Your task to perform on an android device: Open Google Image 0: 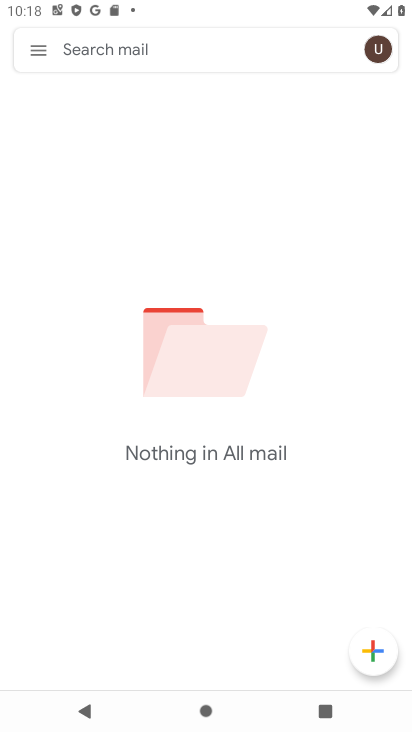
Step 0: press home button
Your task to perform on an android device: Open Google Image 1: 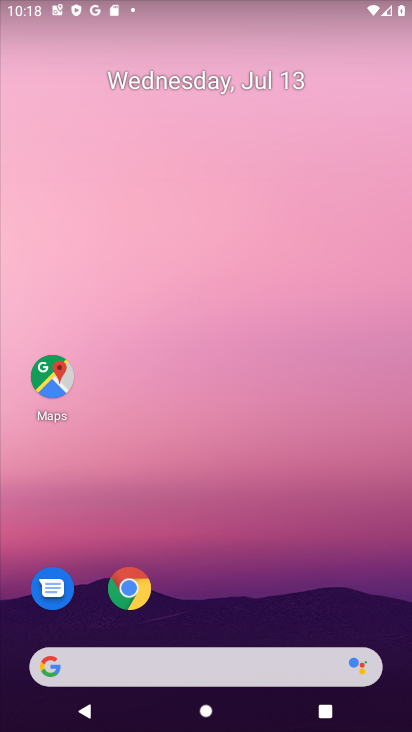
Step 1: drag from (238, 553) to (217, 69)
Your task to perform on an android device: Open Google Image 2: 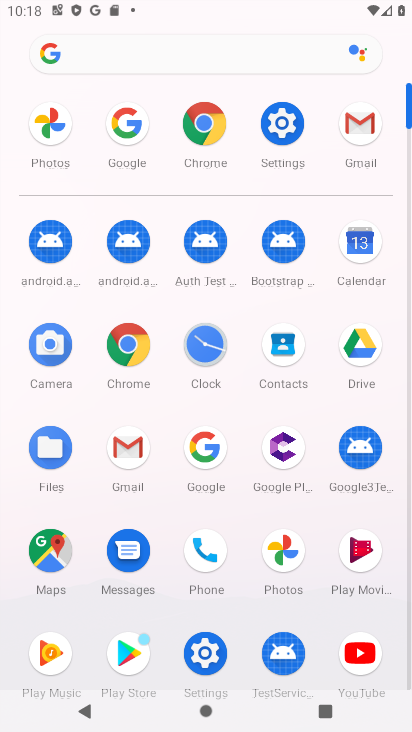
Step 2: click (125, 128)
Your task to perform on an android device: Open Google Image 3: 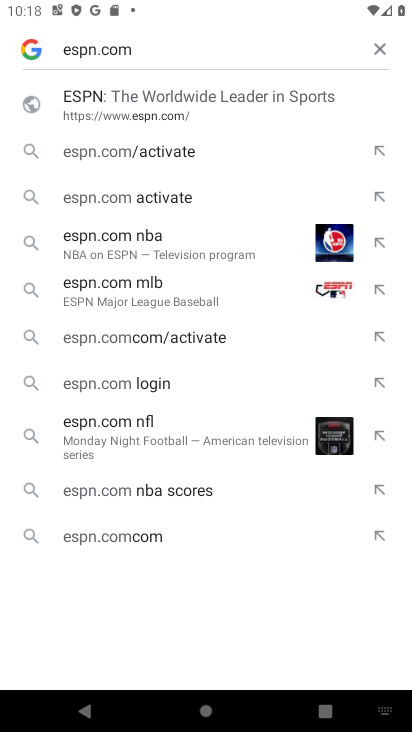
Step 3: click (375, 48)
Your task to perform on an android device: Open Google Image 4: 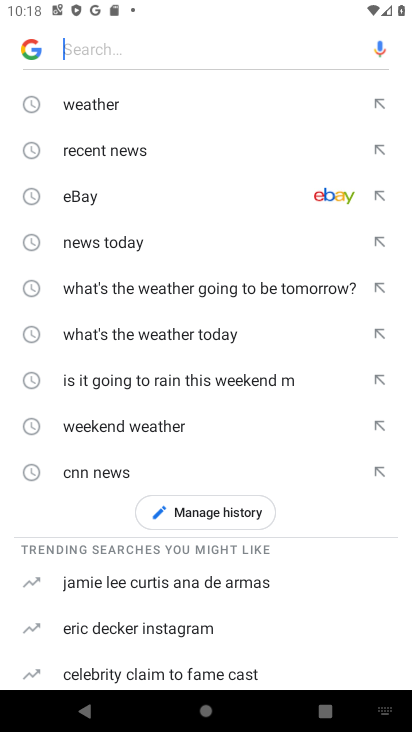
Step 4: task complete